Your task to perform on an android device: Open the phone app and click the voicemail tab. Image 0: 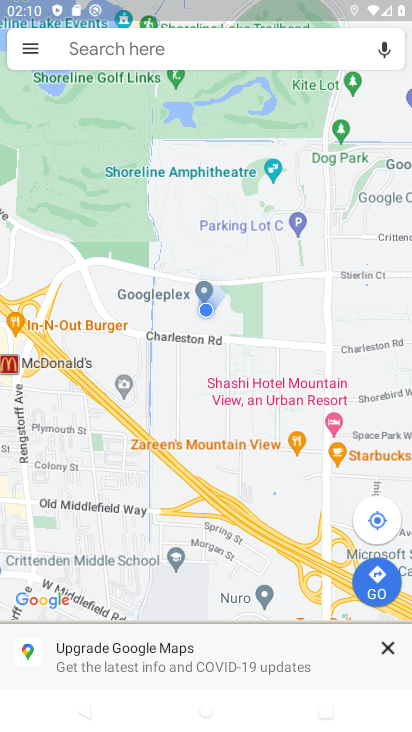
Step 0: press home button
Your task to perform on an android device: Open the phone app and click the voicemail tab. Image 1: 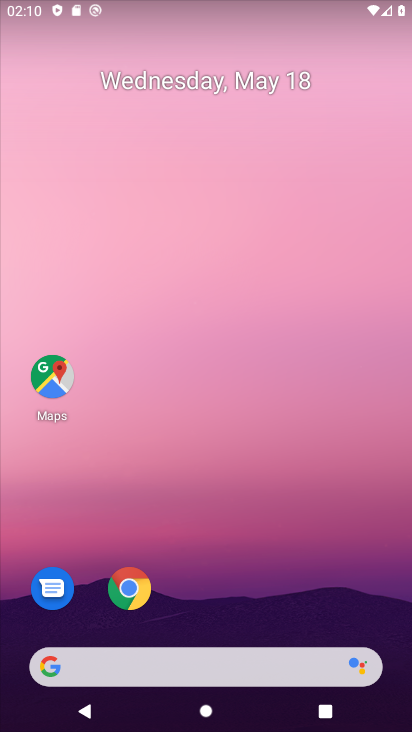
Step 1: drag from (3, 729) to (254, 189)
Your task to perform on an android device: Open the phone app and click the voicemail tab. Image 2: 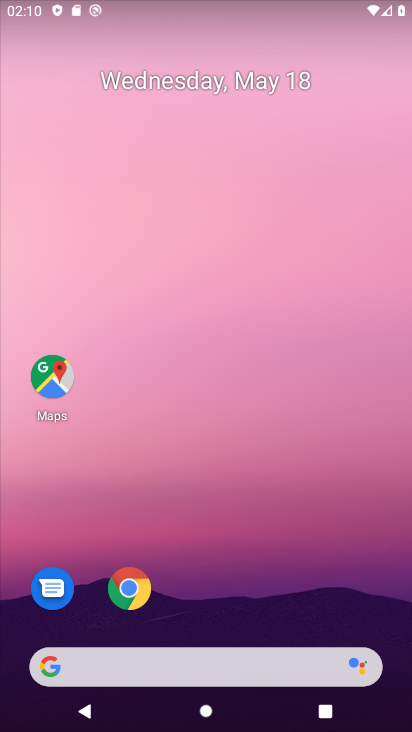
Step 2: drag from (5, 637) to (230, 193)
Your task to perform on an android device: Open the phone app and click the voicemail tab. Image 3: 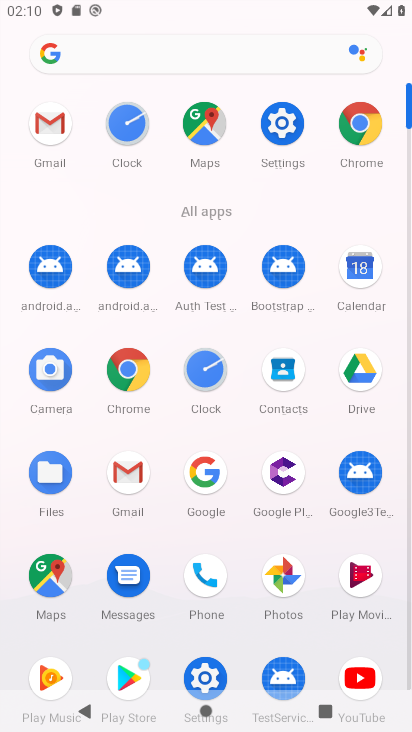
Step 3: click (202, 581)
Your task to perform on an android device: Open the phone app and click the voicemail tab. Image 4: 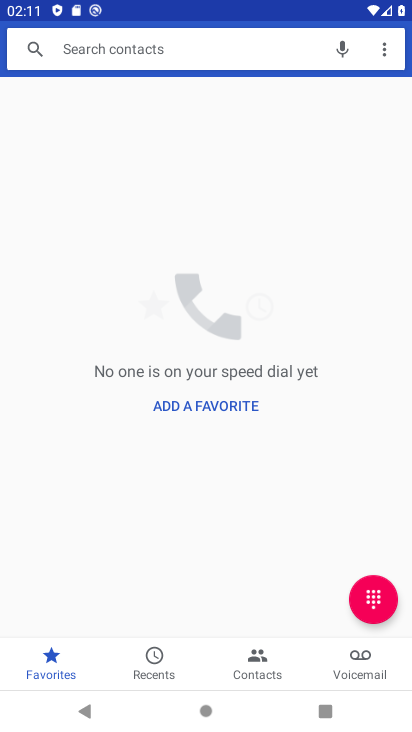
Step 4: click (344, 664)
Your task to perform on an android device: Open the phone app and click the voicemail tab. Image 5: 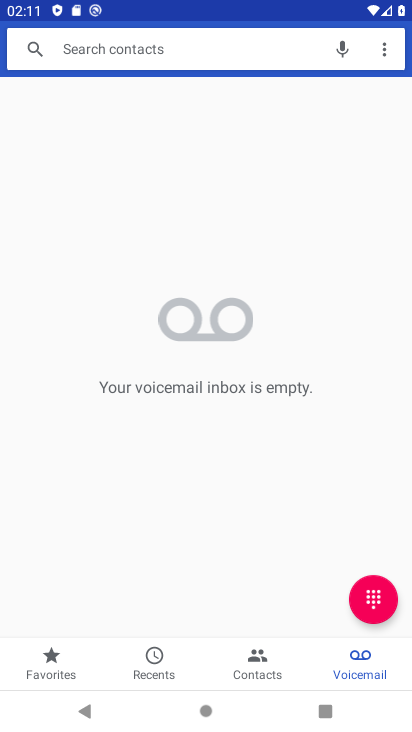
Step 5: task complete